Your task to perform on an android device: turn off location Image 0: 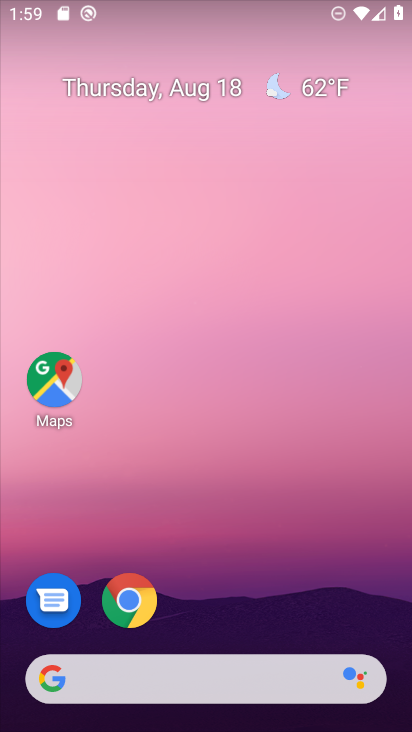
Step 0: drag from (231, 571) to (191, 141)
Your task to perform on an android device: turn off location Image 1: 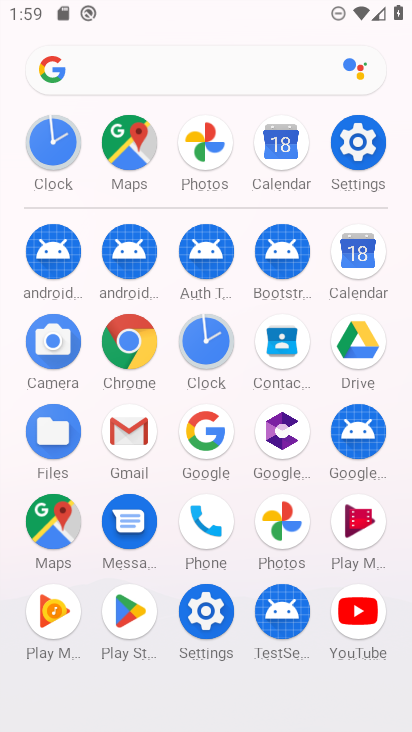
Step 1: click (344, 142)
Your task to perform on an android device: turn off location Image 2: 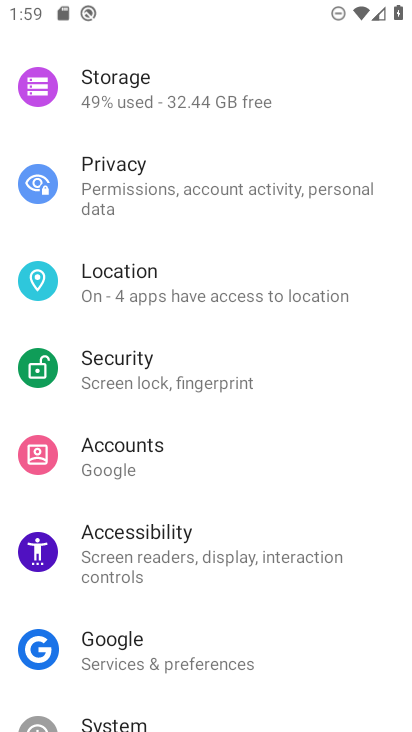
Step 2: click (121, 272)
Your task to perform on an android device: turn off location Image 3: 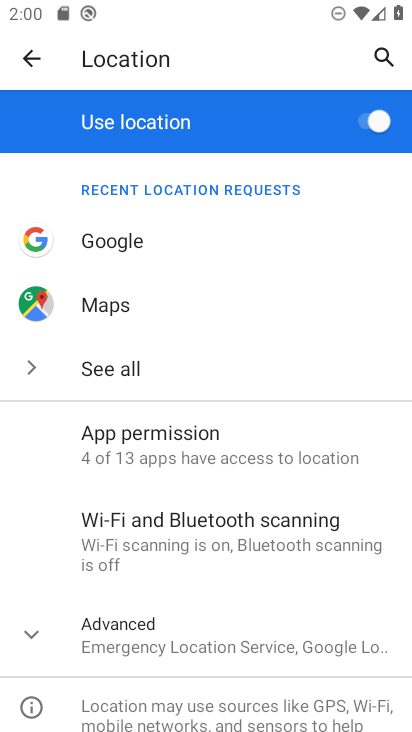
Step 3: click (367, 116)
Your task to perform on an android device: turn off location Image 4: 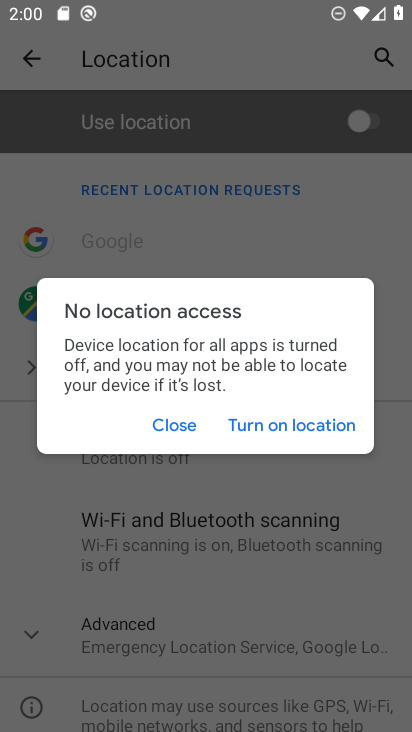
Step 4: click (175, 429)
Your task to perform on an android device: turn off location Image 5: 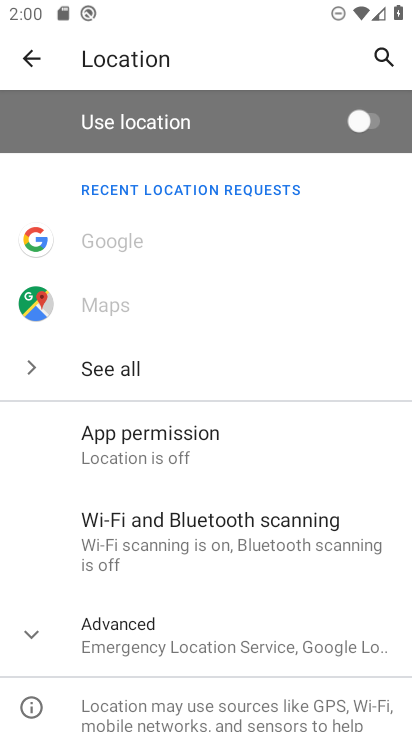
Step 5: task complete